Your task to perform on an android device: turn on wifi Image 0: 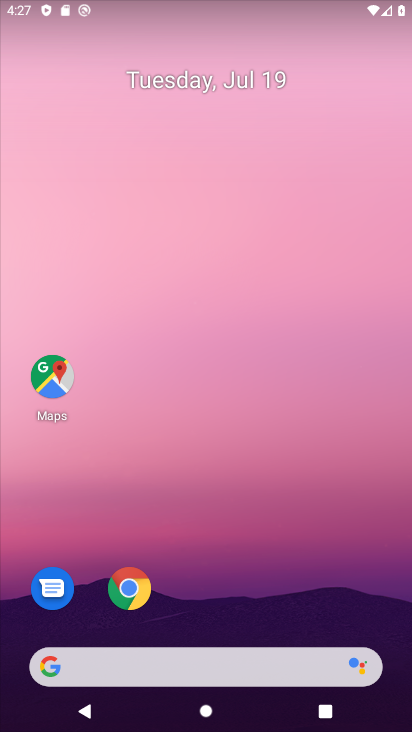
Step 0: drag from (383, 630) to (349, 159)
Your task to perform on an android device: turn on wifi Image 1: 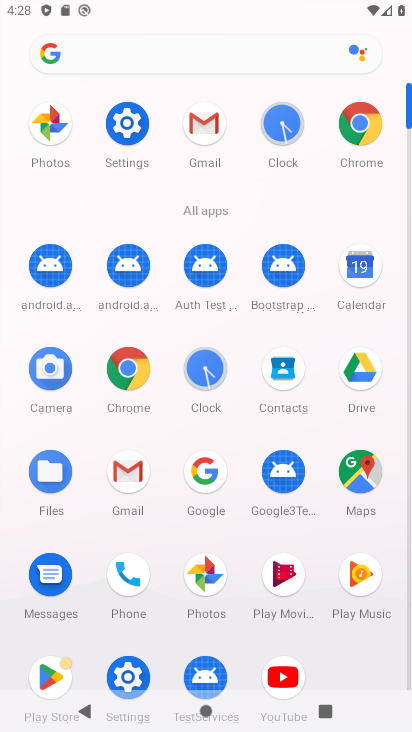
Step 1: click (127, 676)
Your task to perform on an android device: turn on wifi Image 2: 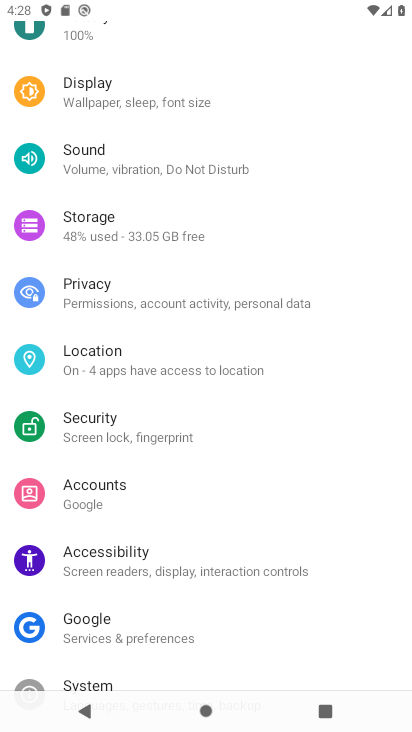
Step 2: drag from (308, 152) to (322, 456)
Your task to perform on an android device: turn on wifi Image 3: 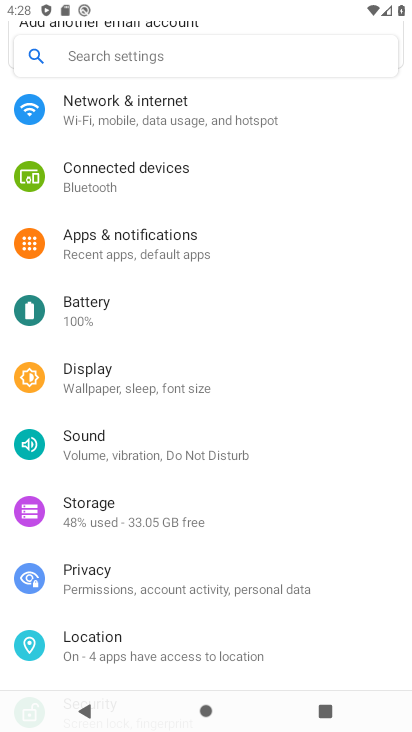
Step 3: click (110, 109)
Your task to perform on an android device: turn on wifi Image 4: 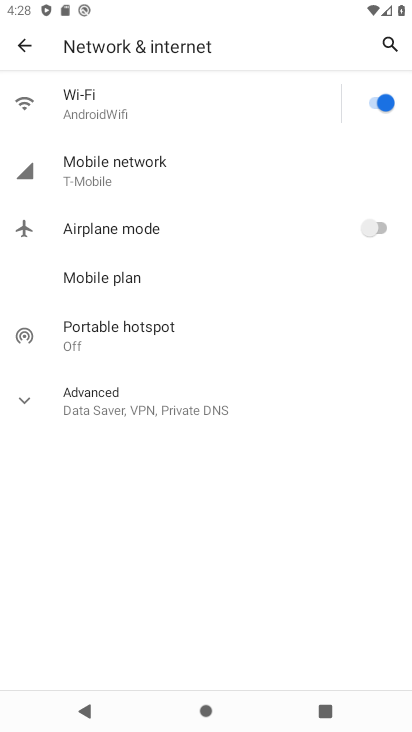
Step 4: task complete